Your task to perform on an android device: Open the stopwatch Image 0: 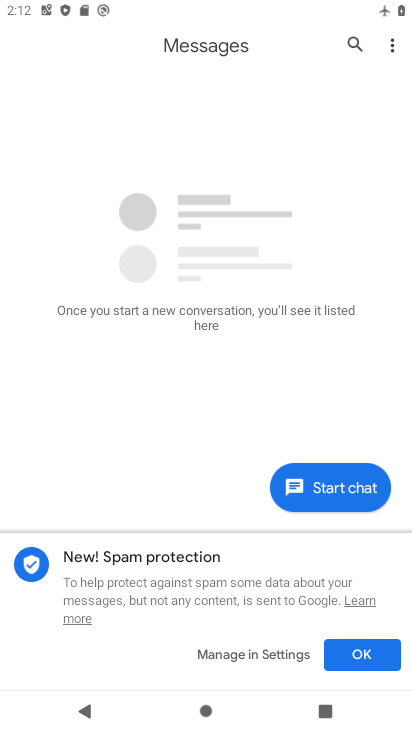
Step 0: press home button
Your task to perform on an android device: Open the stopwatch Image 1: 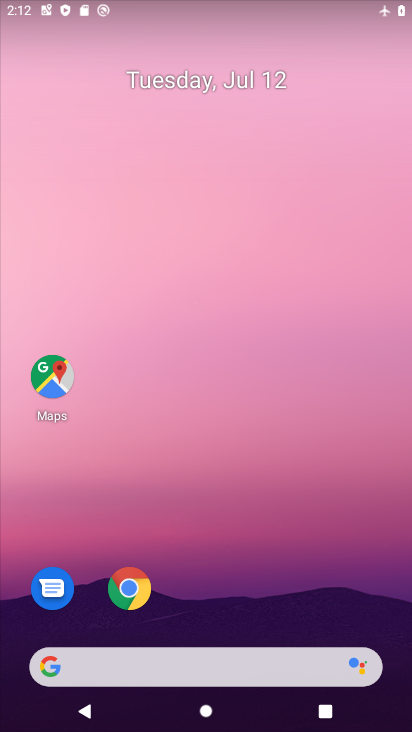
Step 1: drag from (192, 657) to (190, 122)
Your task to perform on an android device: Open the stopwatch Image 2: 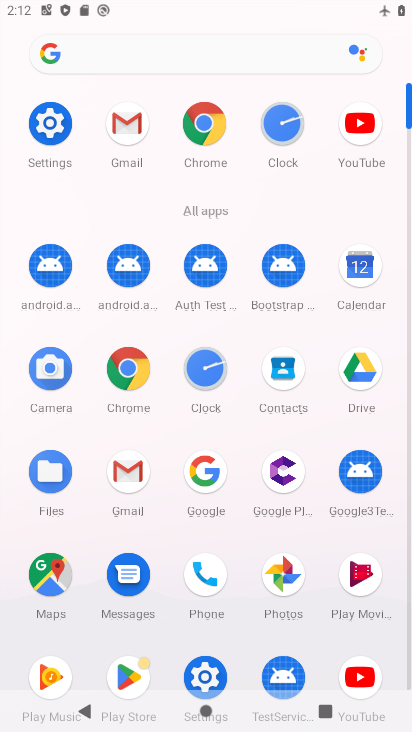
Step 2: click (197, 368)
Your task to perform on an android device: Open the stopwatch Image 3: 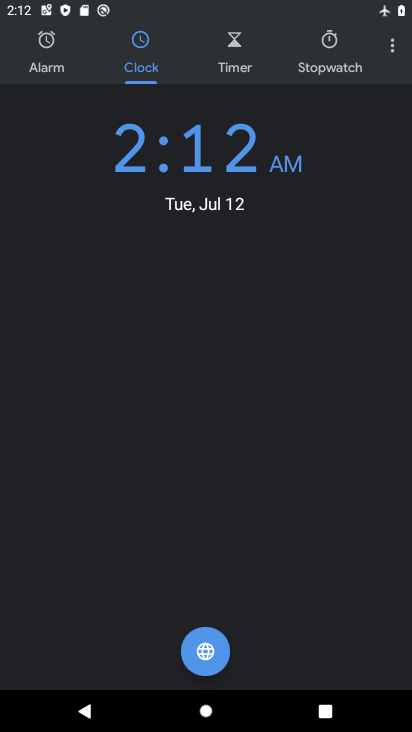
Step 3: click (348, 54)
Your task to perform on an android device: Open the stopwatch Image 4: 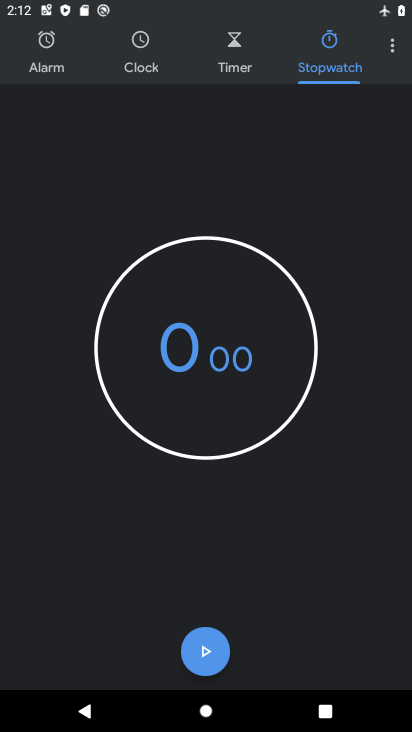
Step 4: task complete